Your task to perform on an android device: turn vacation reply on in the gmail app Image 0: 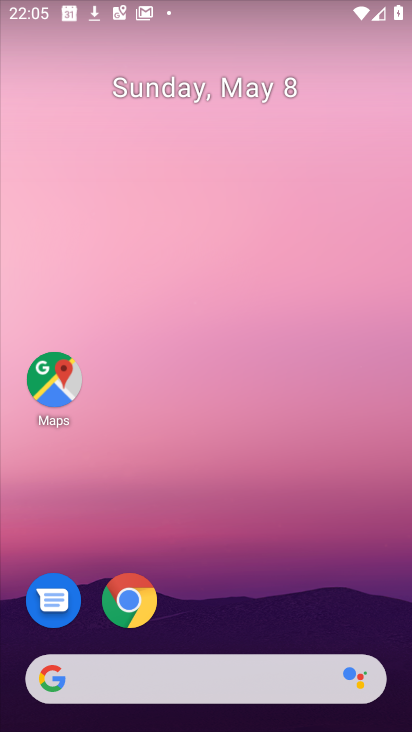
Step 0: drag from (255, 722) to (341, 170)
Your task to perform on an android device: turn vacation reply on in the gmail app Image 1: 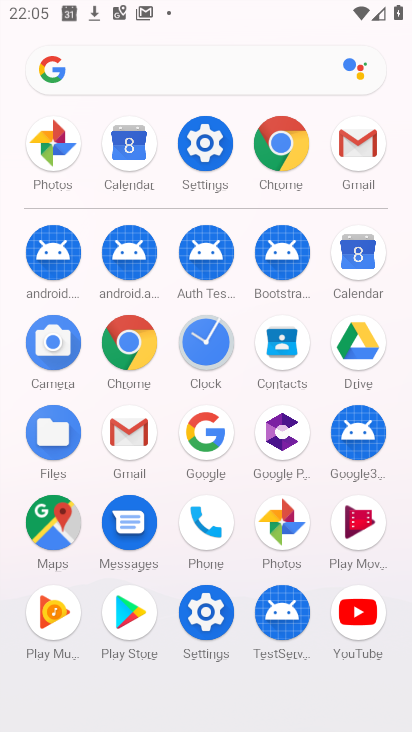
Step 1: click (349, 145)
Your task to perform on an android device: turn vacation reply on in the gmail app Image 2: 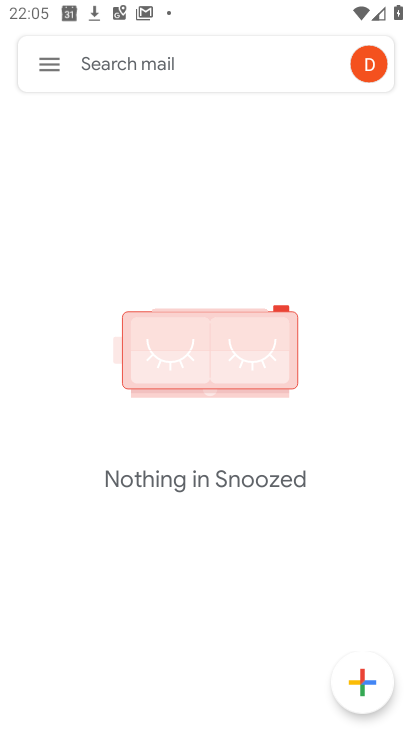
Step 2: click (60, 52)
Your task to perform on an android device: turn vacation reply on in the gmail app Image 3: 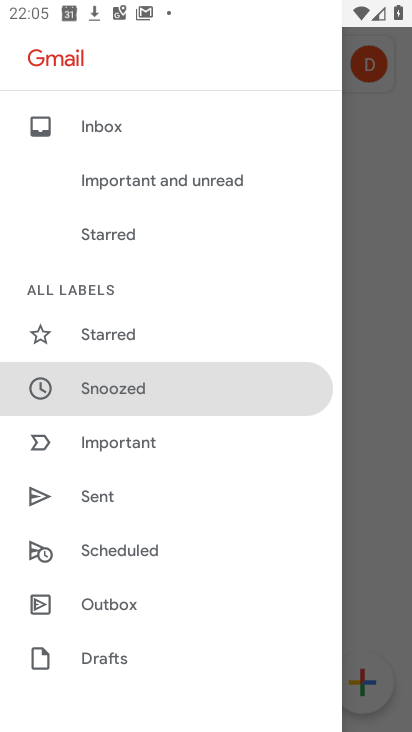
Step 3: drag from (108, 609) to (207, 367)
Your task to perform on an android device: turn vacation reply on in the gmail app Image 4: 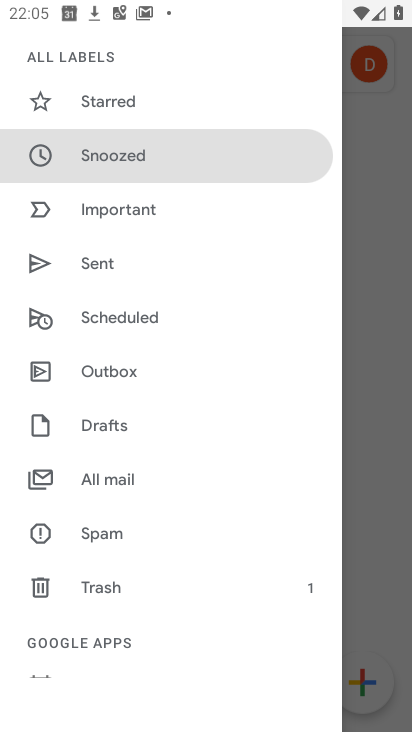
Step 4: drag from (137, 602) to (190, 379)
Your task to perform on an android device: turn vacation reply on in the gmail app Image 5: 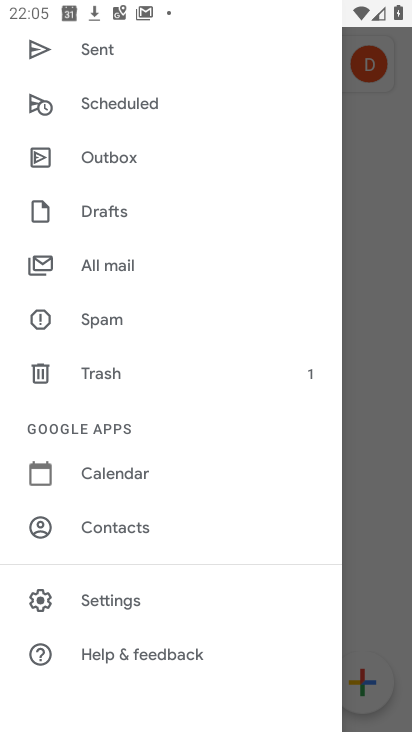
Step 5: click (115, 600)
Your task to perform on an android device: turn vacation reply on in the gmail app Image 6: 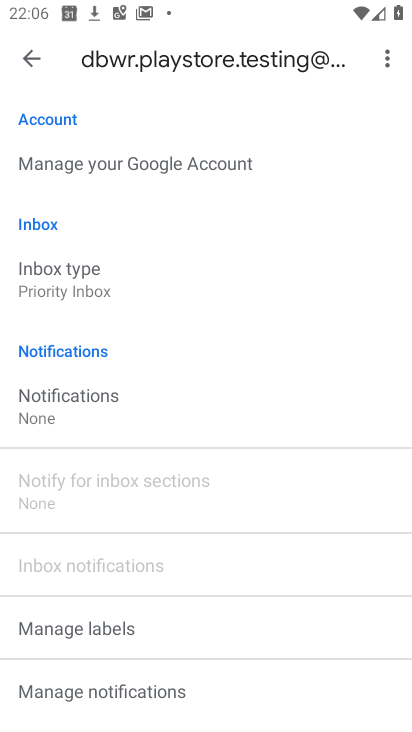
Step 6: drag from (148, 561) to (166, 439)
Your task to perform on an android device: turn vacation reply on in the gmail app Image 7: 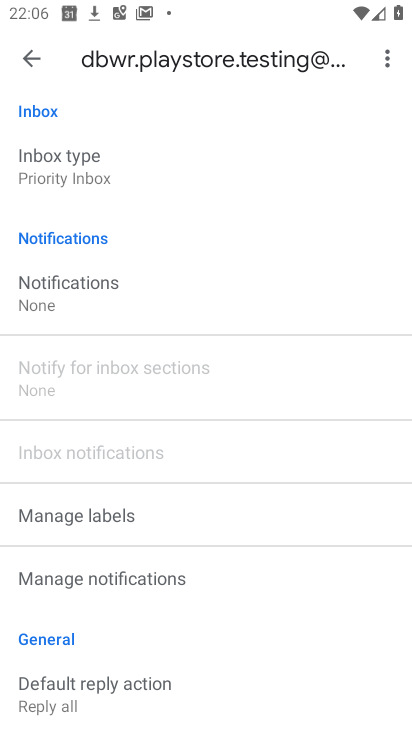
Step 7: drag from (184, 592) to (296, 315)
Your task to perform on an android device: turn vacation reply on in the gmail app Image 8: 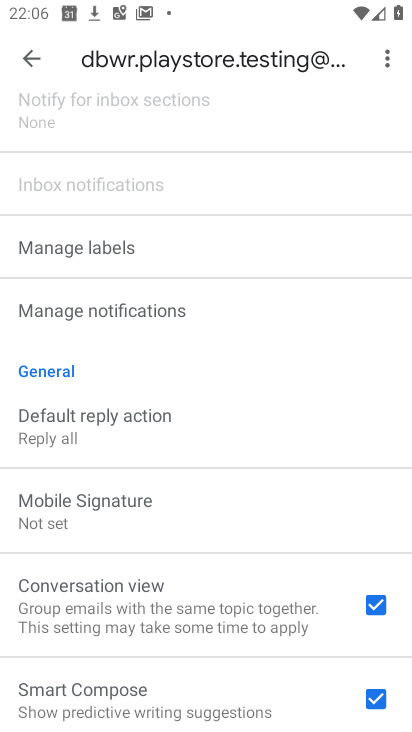
Step 8: drag from (227, 574) to (342, 275)
Your task to perform on an android device: turn vacation reply on in the gmail app Image 9: 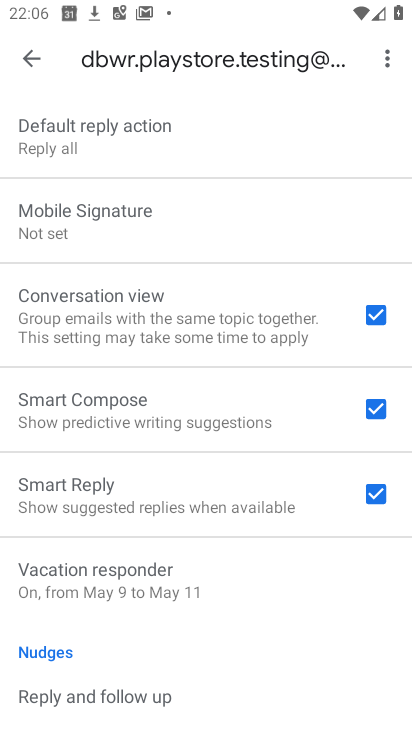
Step 9: click (210, 586)
Your task to perform on an android device: turn vacation reply on in the gmail app Image 10: 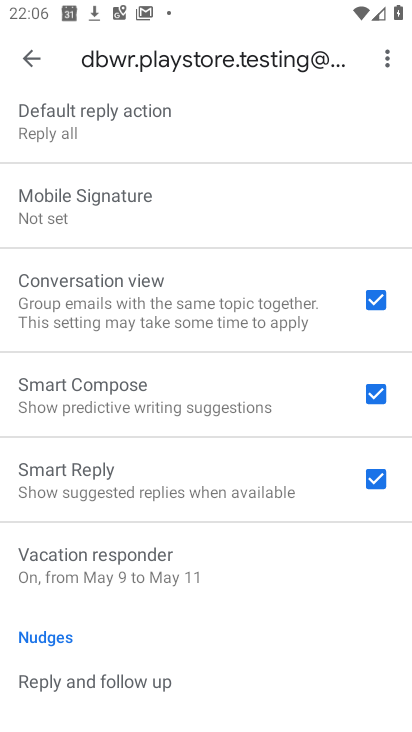
Step 10: click (157, 581)
Your task to perform on an android device: turn vacation reply on in the gmail app Image 11: 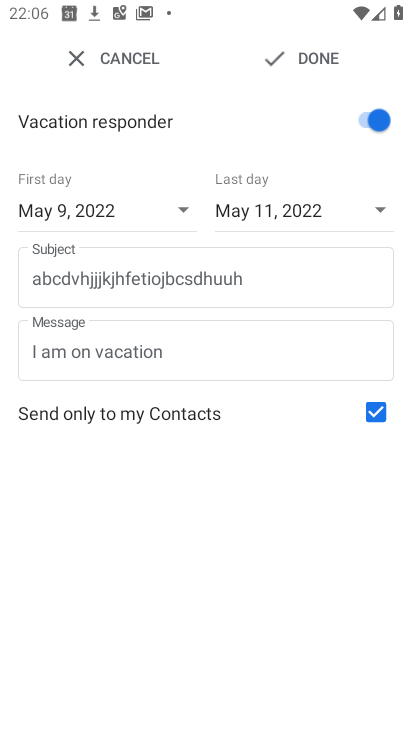
Step 11: task complete